Your task to perform on an android device: find photos in the google photos app Image 0: 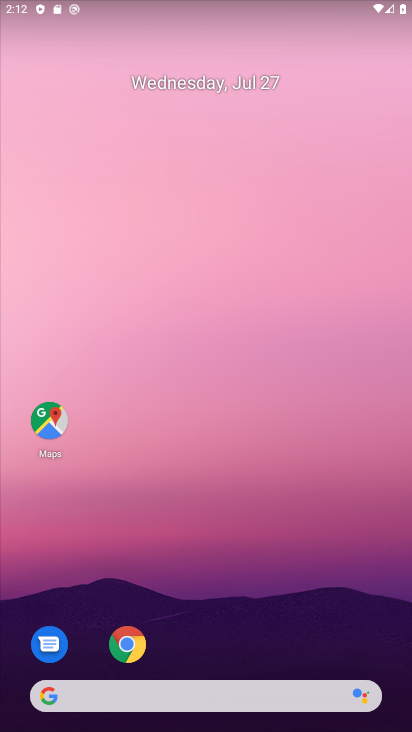
Step 0: drag from (224, 617) to (265, 8)
Your task to perform on an android device: find photos in the google photos app Image 1: 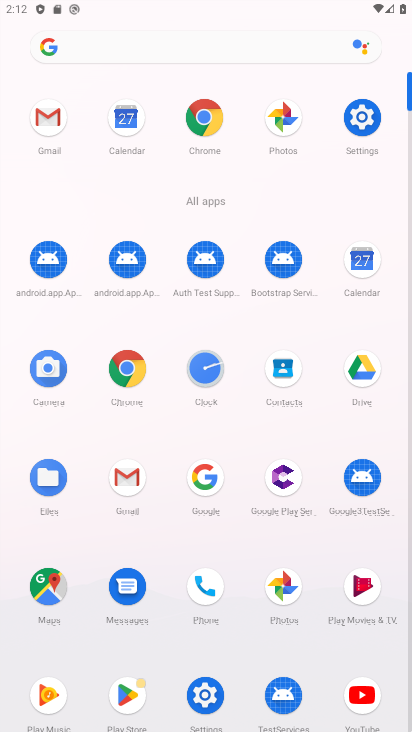
Step 1: click (280, 588)
Your task to perform on an android device: find photos in the google photos app Image 2: 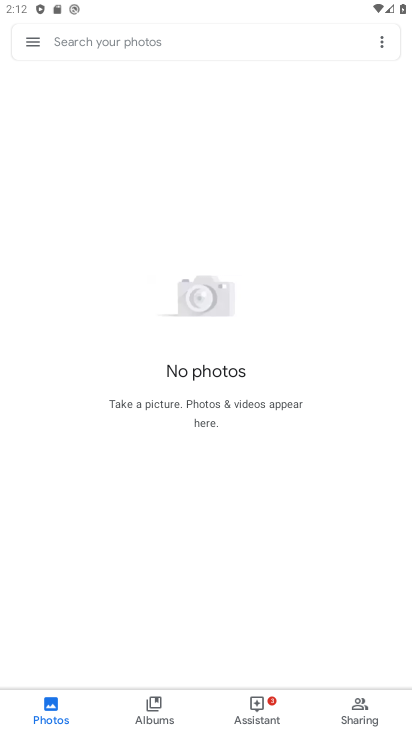
Step 2: task complete